Your task to perform on an android device: open wifi settings Image 0: 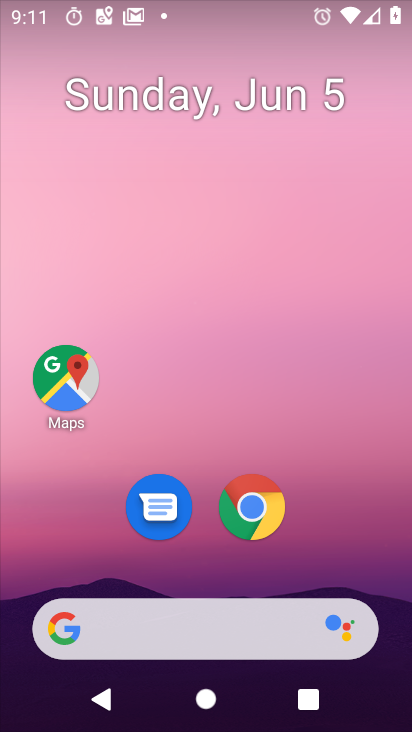
Step 0: drag from (262, 667) to (114, 38)
Your task to perform on an android device: open wifi settings Image 1: 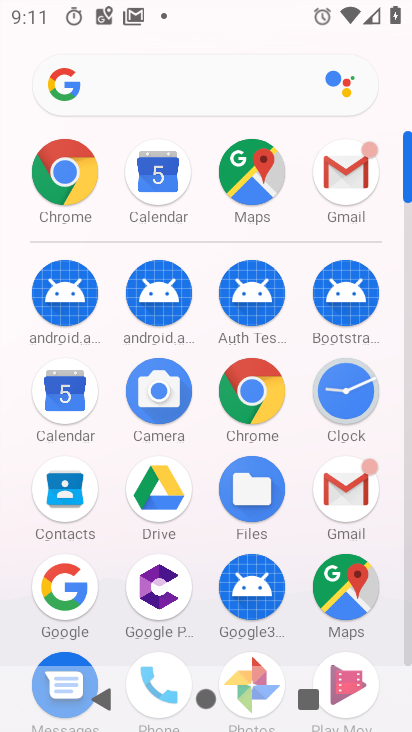
Step 1: drag from (107, 513) to (83, 338)
Your task to perform on an android device: open wifi settings Image 2: 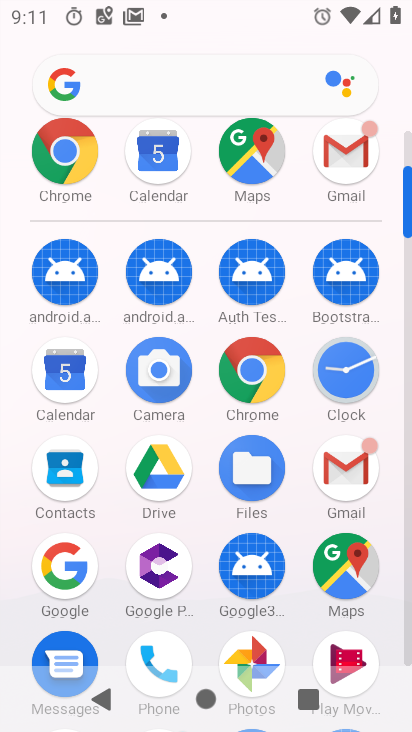
Step 2: drag from (117, 521) to (65, 244)
Your task to perform on an android device: open wifi settings Image 3: 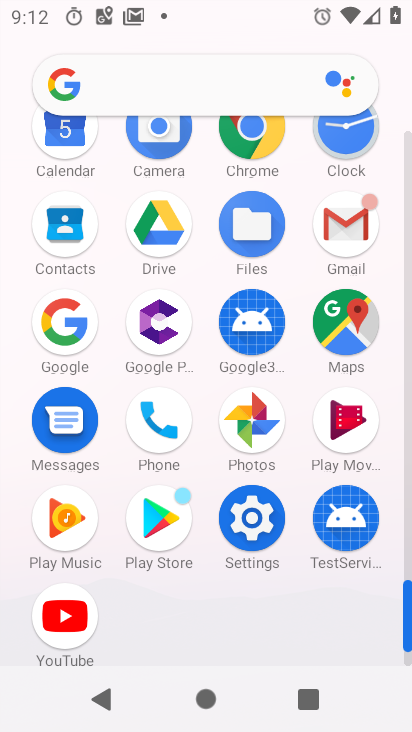
Step 3: click (246, 529)
Your task to perform on an android device: open wifi settings Image 4: 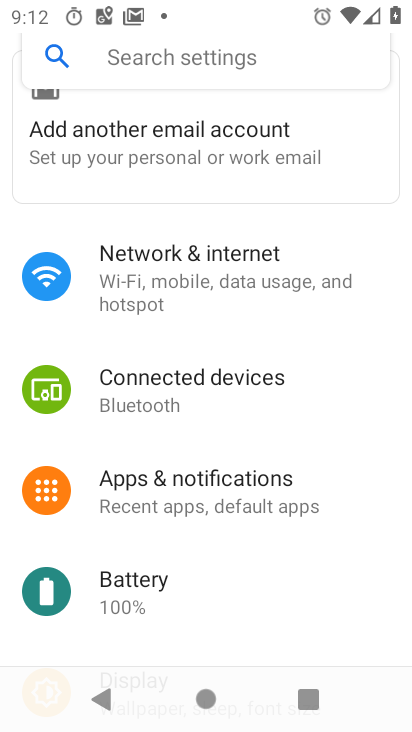
Step 4: click (234, 302)
Your task to perform on an android device: open wifi settings Image 5: 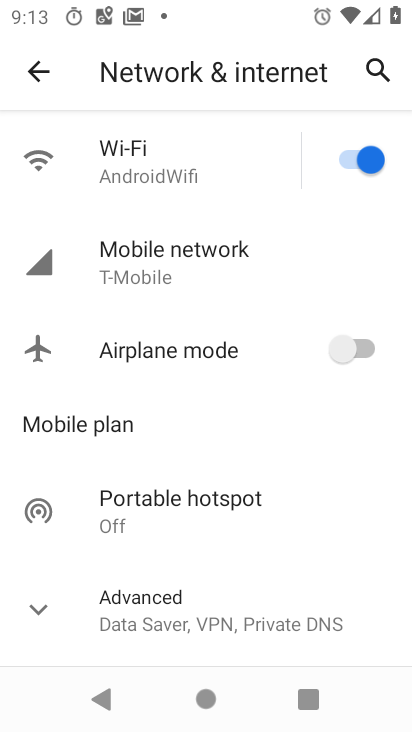
Step 5: click (157, 172)
Your task to perform on an android device: open wifi settings Image 6: 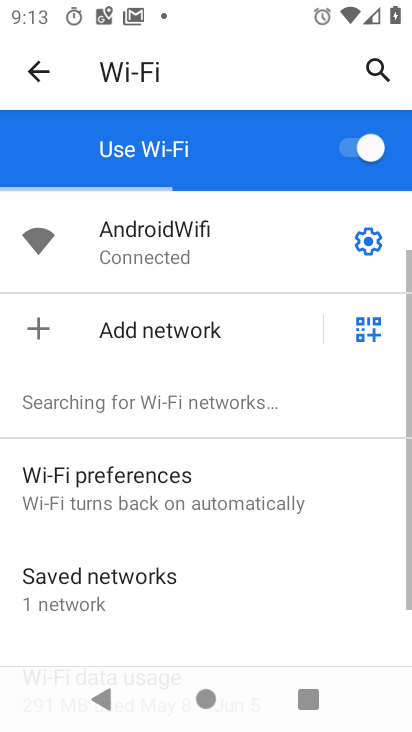
Step 6: task complete